Your task to perform on an android device: Search for vegetarian restaurants on Maps Image 0: 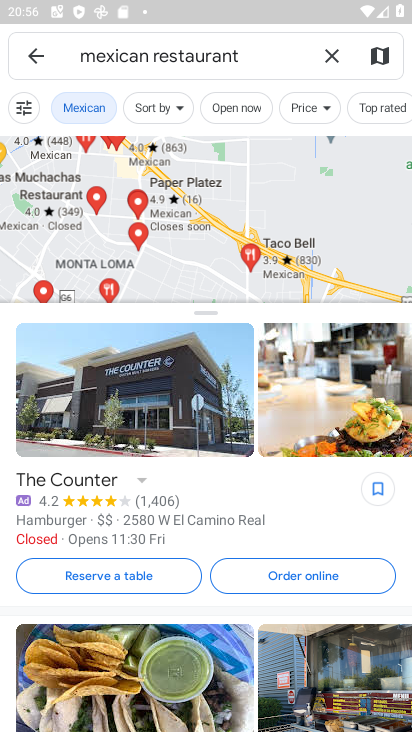
Step 0: press home button
Your task to perform on an android device: Search for vegetarian restaurants on Maps Image 1: 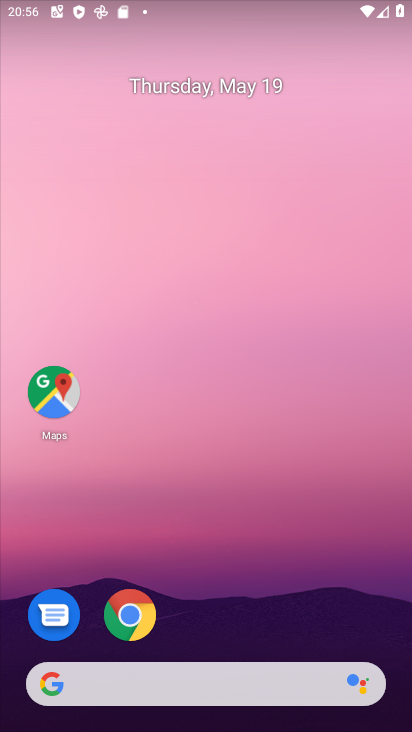
Step 1: click (51, 397)
Your task to perform on an android device: Search for vegetarian restaurants on Maps Image 2: 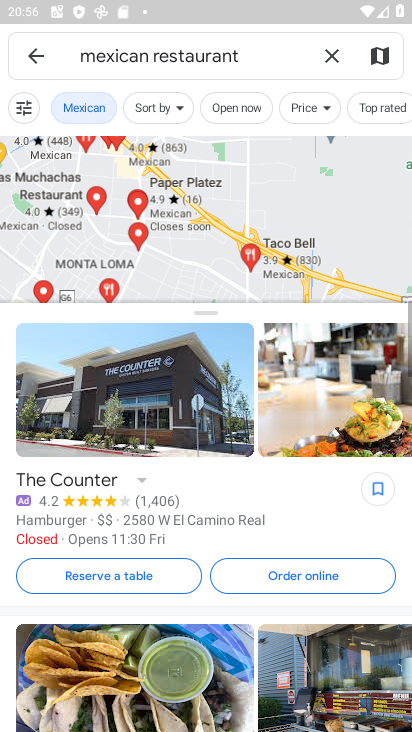
Step 2: click (322, 51)
Your task to perform on an android device: Search for vegetarian restaurants on Maps Image 3: 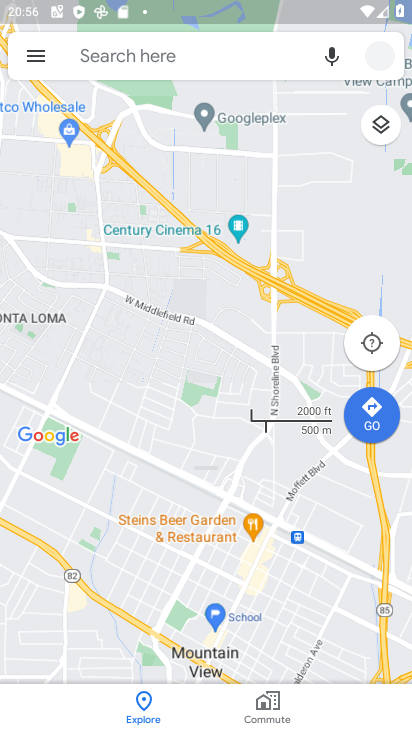
Step 3: click (179, 53)
Your task to perform on an android device: Search for vegetarian restaurants on Maps Image 4: 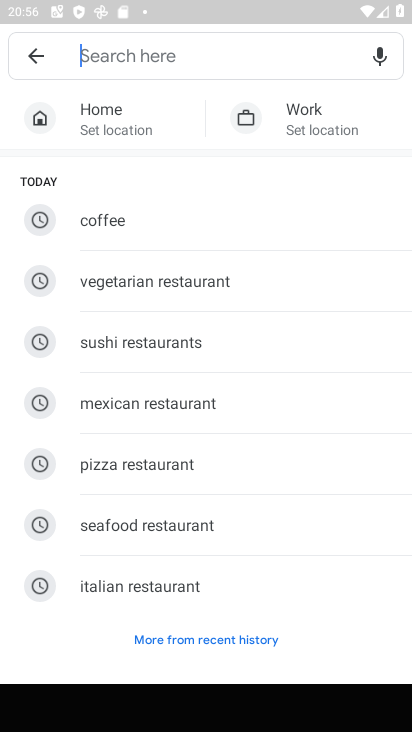
Step 4: click (176, 66)
Your task to perform on an android device: Search for vegetarian restaurants on Maps Image 5: 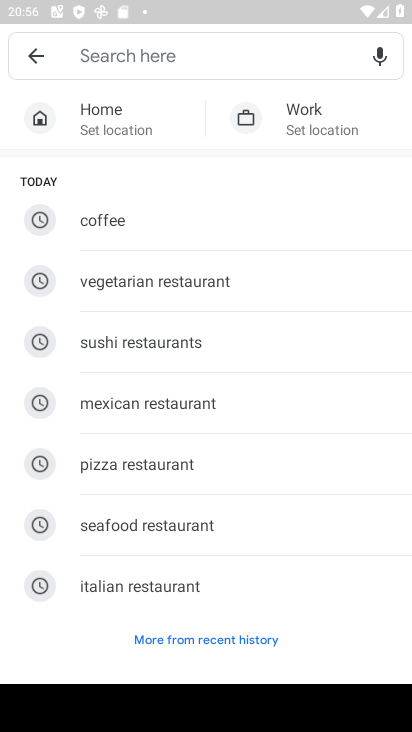
Step 5: click (156, 278)
Your task to perform on an android device: Search for vegetarian restaurants on Maps Image 6: 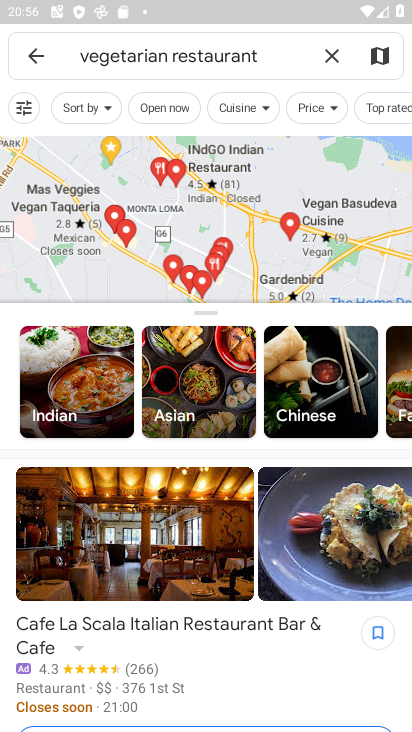
Step 6: task complete